Your task to perform on an android device: Search for flights from Barcelona to Mexico city Image 0: 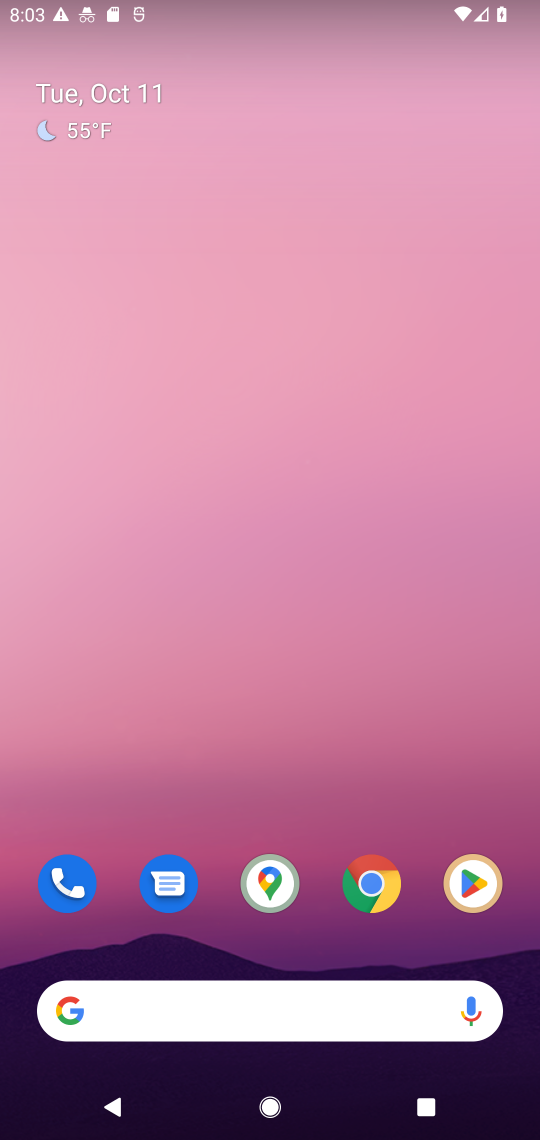
Step 0: drag from (284, 814) to (249, 27)
Your task to perform on an android device: Search for flights from Barcelona to Mexico city Image 1: 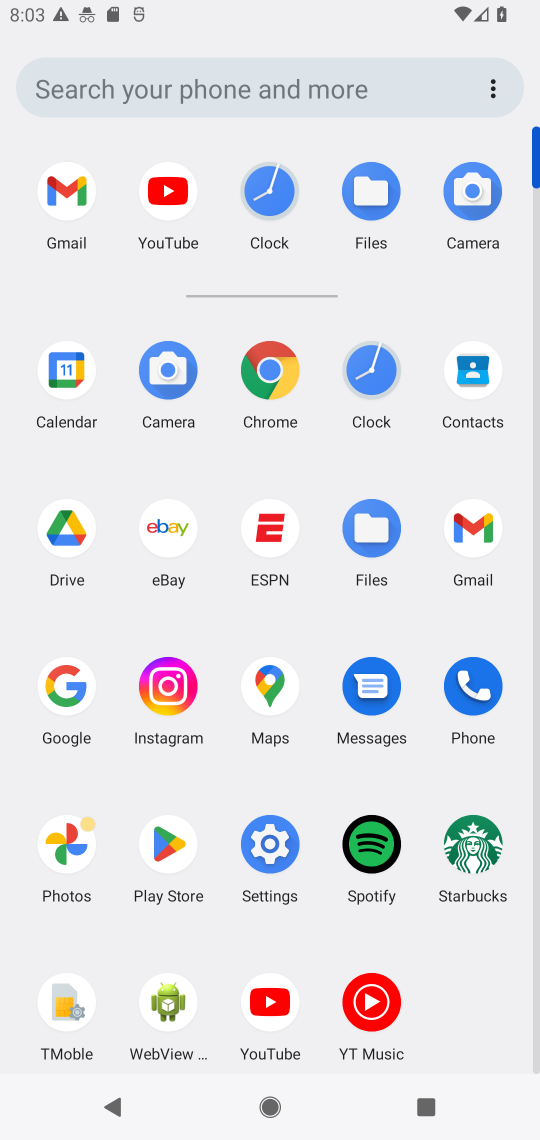
Step 1: click (273, 374)
Your task to perform on an android device: Search for flights from Barcelona to Mexico city Image 2: 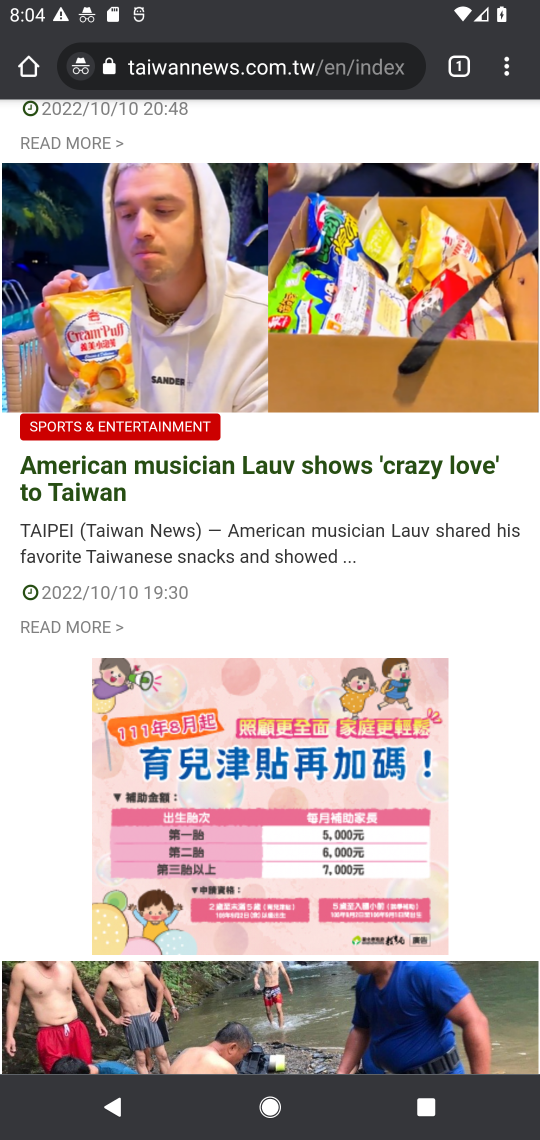
Step 2: click (268, 58)
Your task to perform on an android device: Search for flights from Barcelona to Mexico city Image 3: 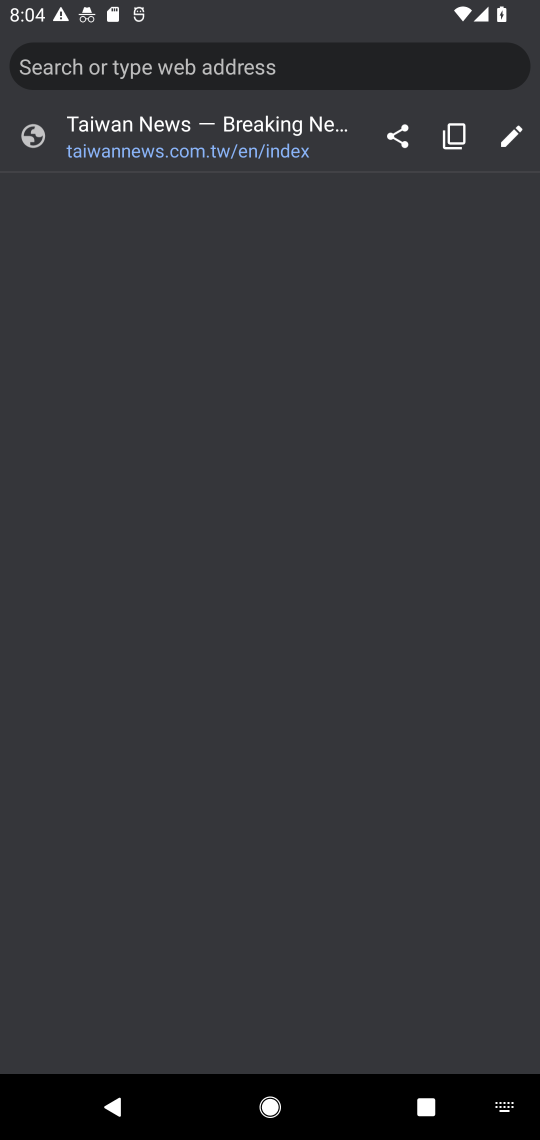
Step 3: type "flights from Barcelona to Mexico city"
Your task to perform on an android device: Search for flights from Barcelona to Mexico city Image 4: 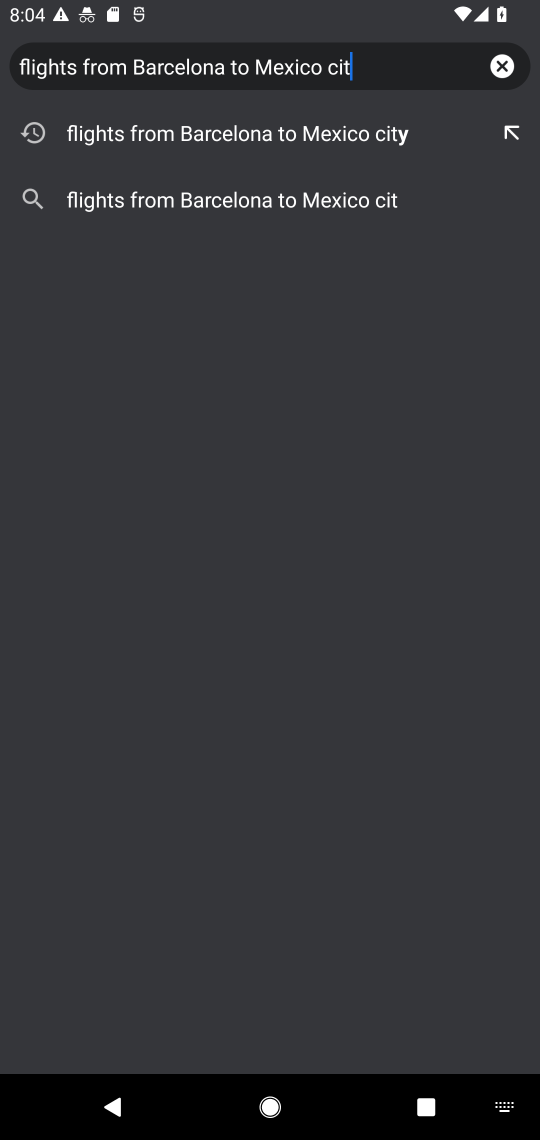
Step 4: press enter
Your task to perform on an android device: Search for flights from Barcelona to Mexico city Image 5: 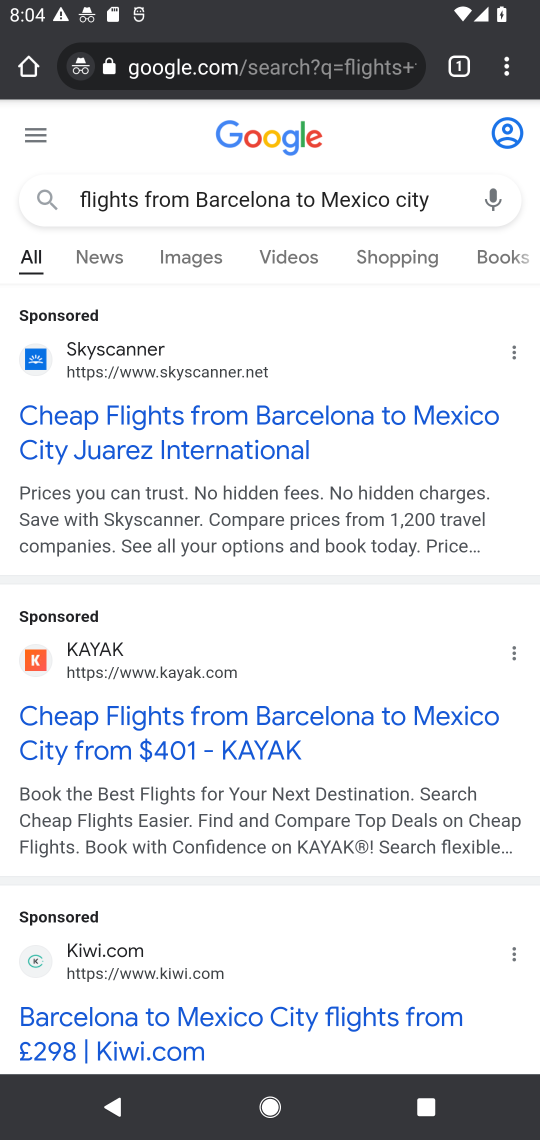
Step 5: drag from (297, 883) to (284, 47)
Your task to perform on an android device: Search for flights from Barcelona to Mexico city Image 6: 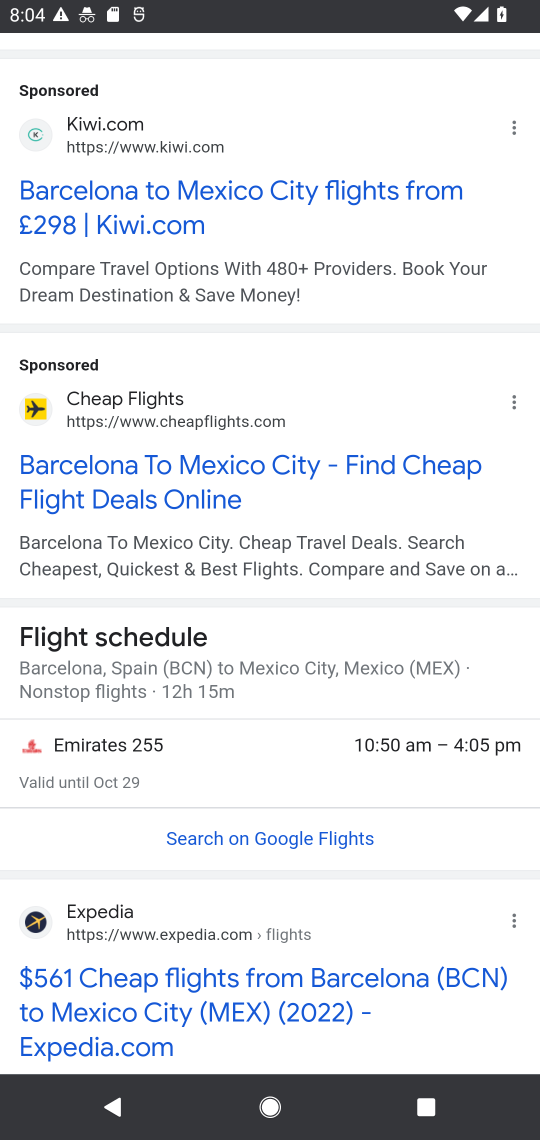
Step 6: drag from (248, 725) to (285, 460)
Your task to perform on an android device: Search for flights from Barcelona to Mexico city Image 7: 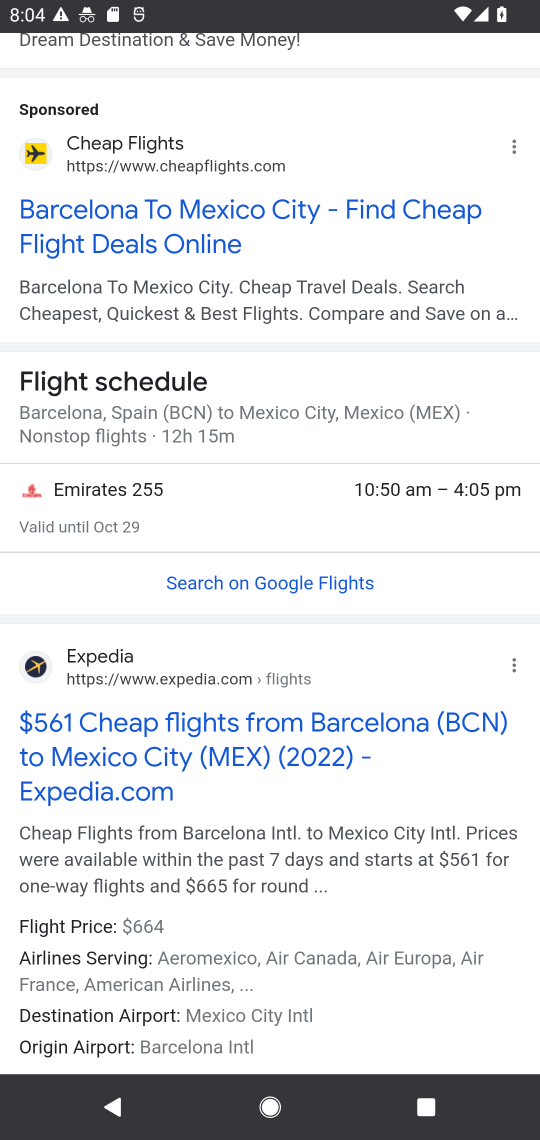
Step 7: drag from (215, 759) to (231, 325)
Your task to perform on an android device: Search for flights from Barcelona to Mexico city Image 8: 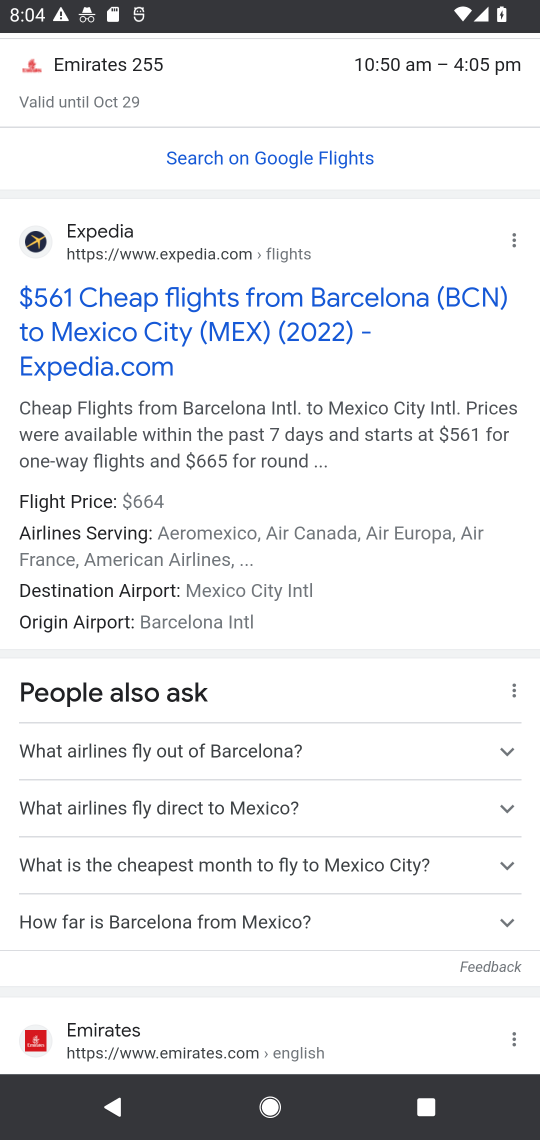
Step 8: click (189, 376)
Your task to perform on an android device: Search for flights from Barcelona to Mexico city Image 9: 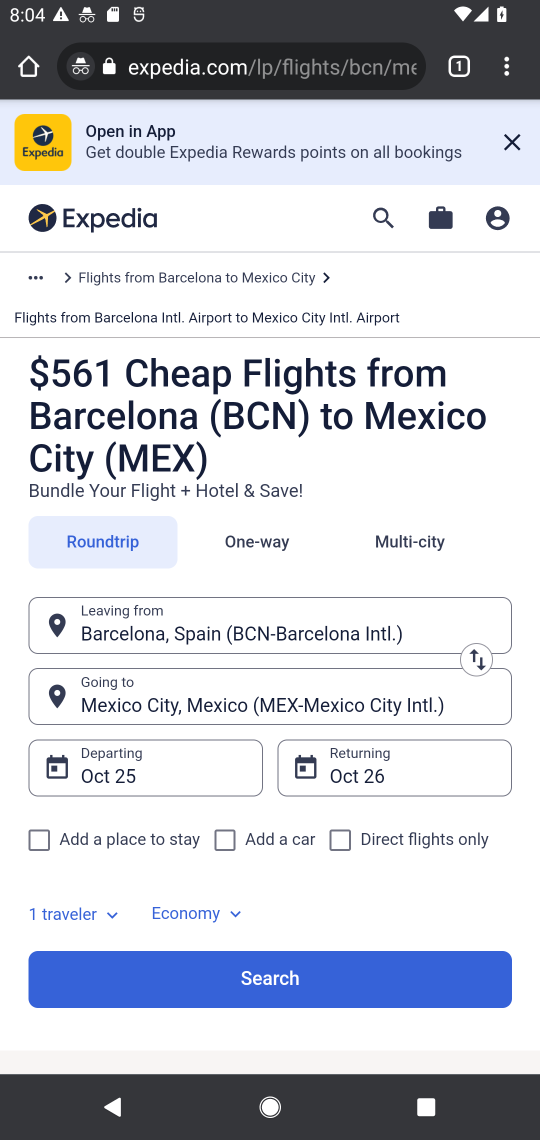
Step 9: task complete